Your task to perform on an android device: Open Youtube and go to the subscriptions tab Image 0: 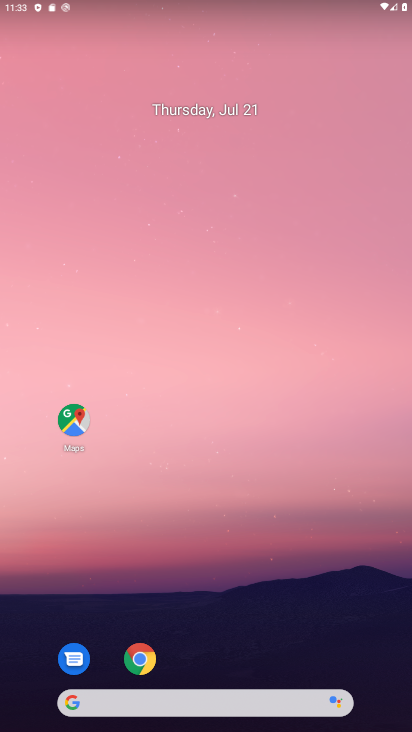
Step 0: drag from (208, 598) to (238, 76)
Your task to perform on an android device: Open Youtube and go to the subscriptions tab Image 1: 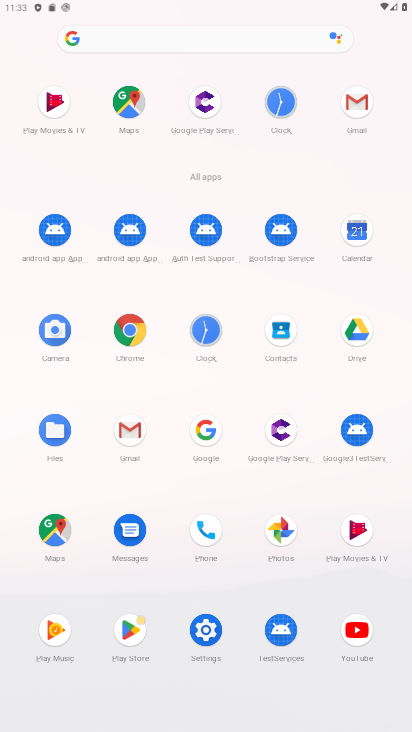
Step 1: click (359, 640)
Your task to perform on an android device: Open Youtube and go to the subscriptions tab Image 2: 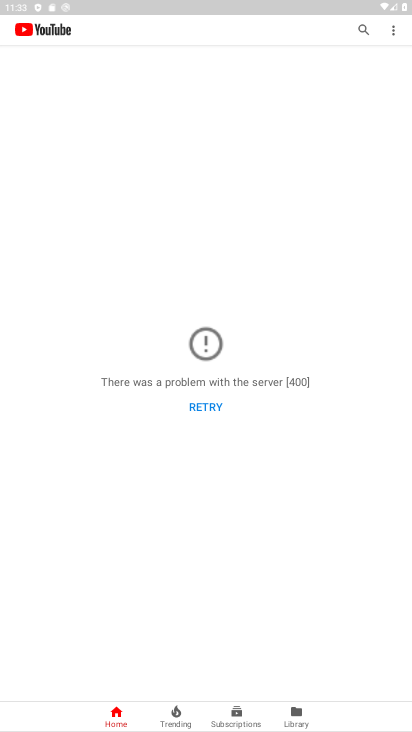
Step 2: click (232, 720)
Your task to perform on an android device: Open Youtube and go to the subscriptions tab Image 3: 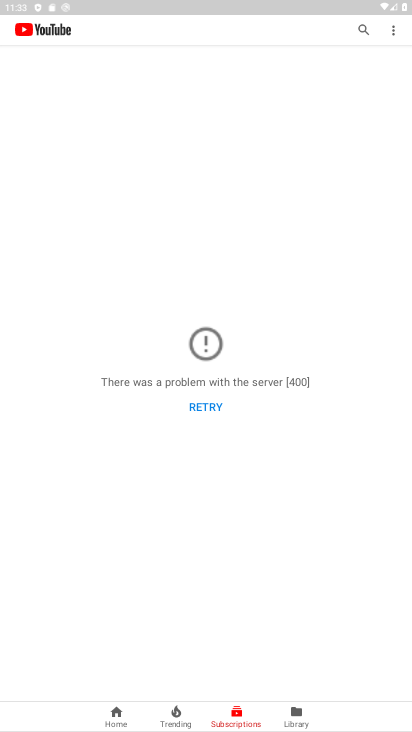
Step 3: task complete